Your task to perform on an android device: What's the weather going to be tomorrow? Image 0: 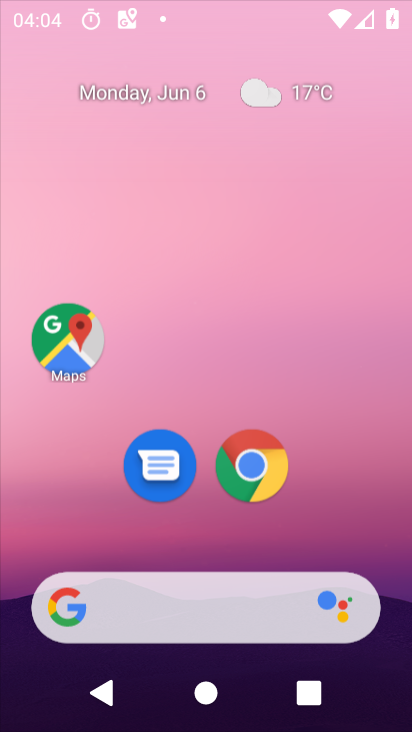
Step 0: press home button
Your task to perform on an android device: What's the weather going to be tomorrow? Image 1: 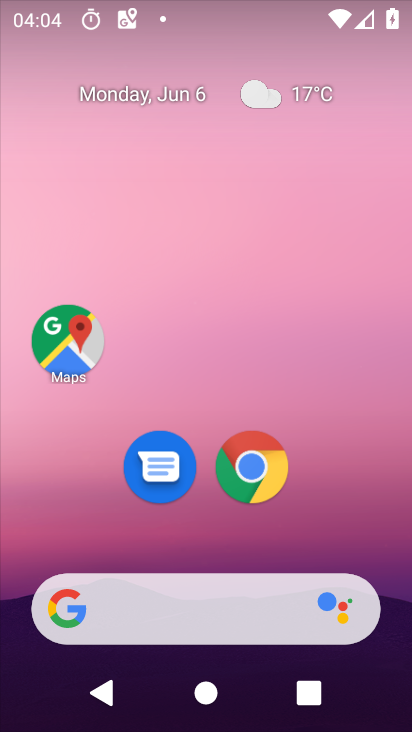
Step 1: click (308, 94)
Your task to perform on an android device: What's the weather going to be tomorrow? Image 2: 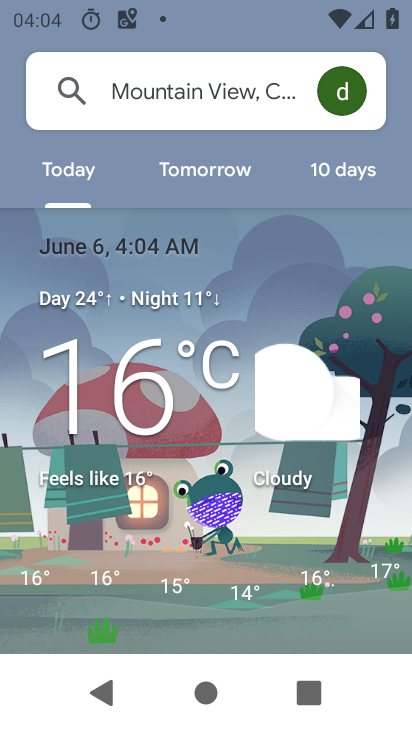
Step 2: click (203, 178)
Your task to perform on an android device: What's the weather going to be tomorrow? Image 3: 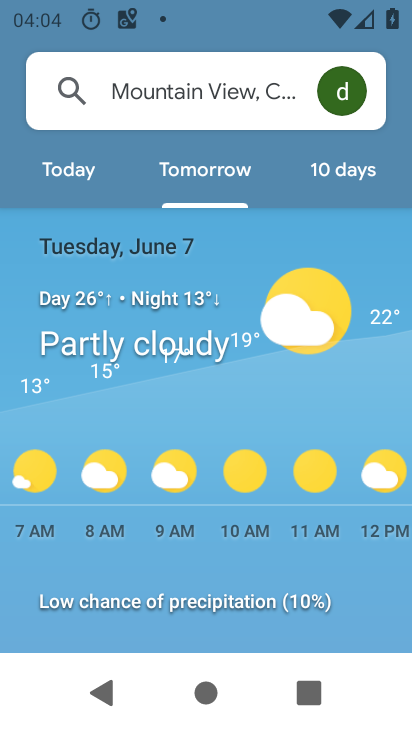
Step 3: task complete